Your task to perform on an android device: turn notification dots off Image 0: 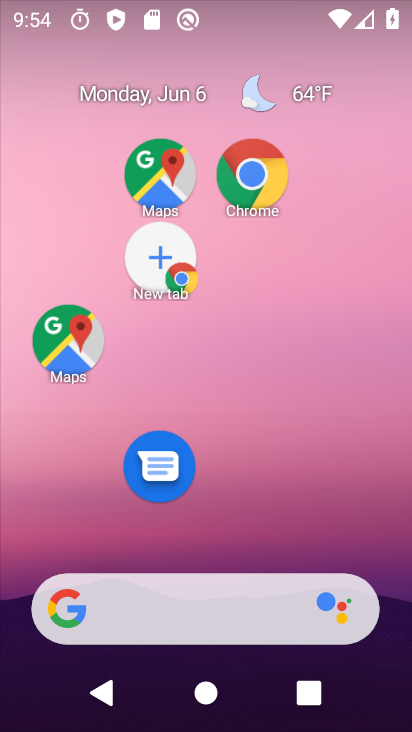
Step 0: drag from (248, 705) to (185, 263)
Your task to perform on an android device: turn notification dots off Image 1: 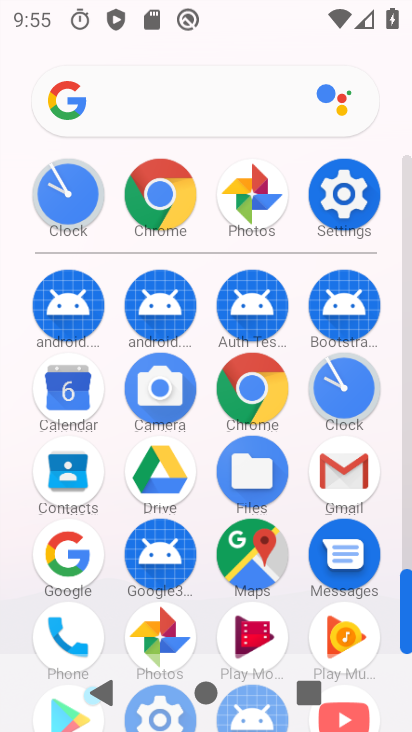
Step 1: click (333, 195)
Your task to perform on an android device: turn notification dots off Image 2: 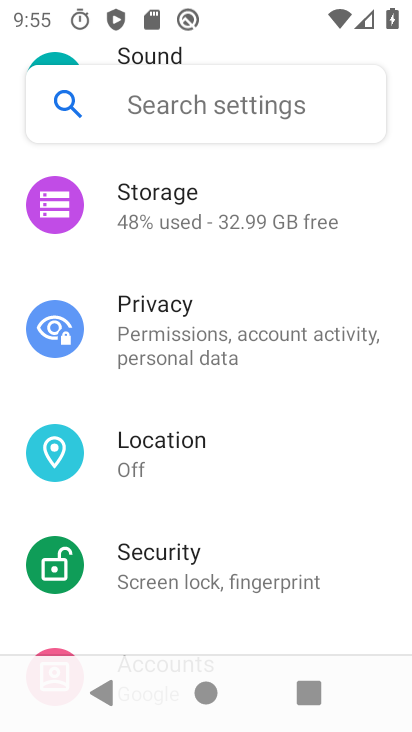
Step 2: drag from (193, 183) to (232, 549)
Your task to perform on an android device: turn notification dots off Image 3: 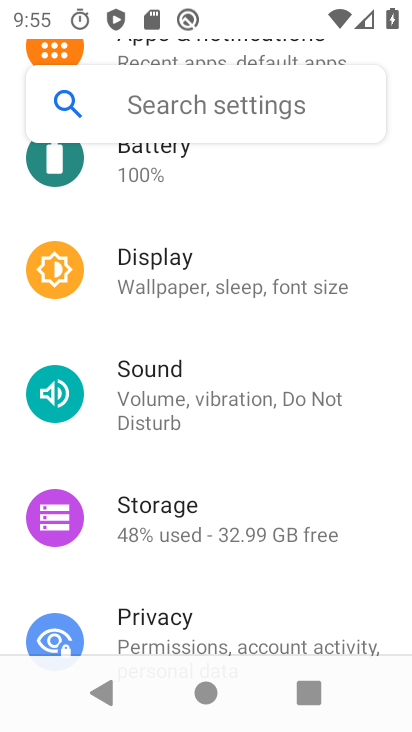
Step 3: drag from (210, 285) to (246, 497)
Your task to perform on an android device: turn notification dots off Image 4: 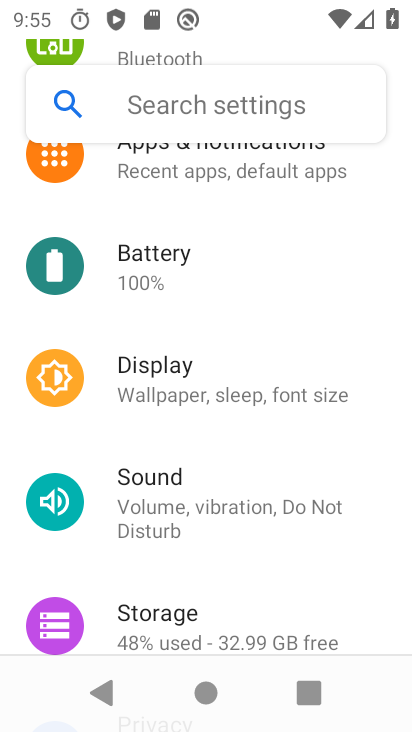
Step 4: drag from (226, 295) to (241, 494)
Your task to perform on an android device: turn notification dots off Image 5: 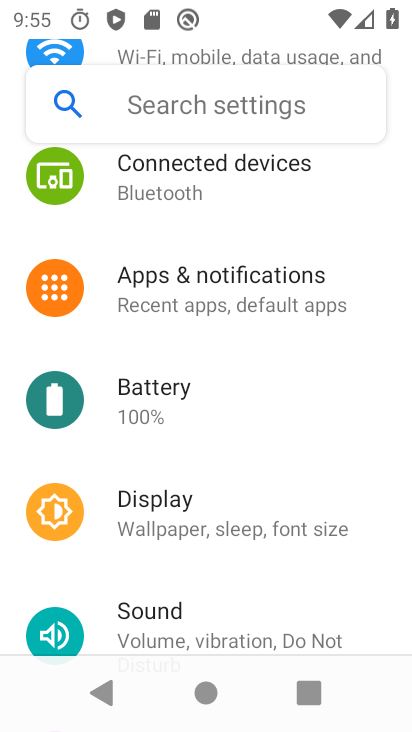
Step 5: drag from (155, 264) to (207, 551)
Your task to perform on an android device: turn notification dots off Image 6: 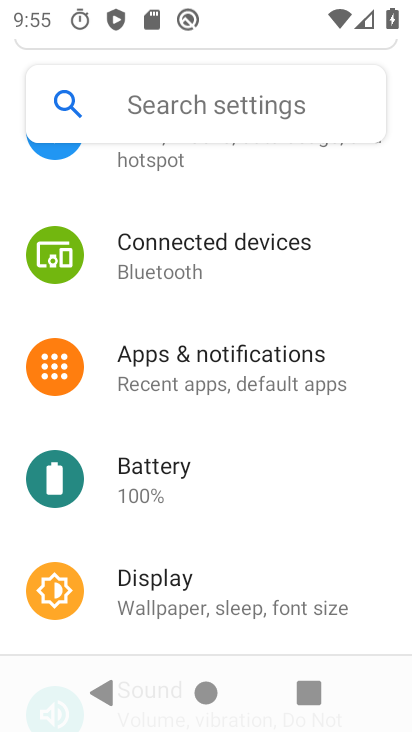
Step 6: drag from (150, 314) to (232, 599)
Your task to perform on an android device: turn notification dots off Image 7: 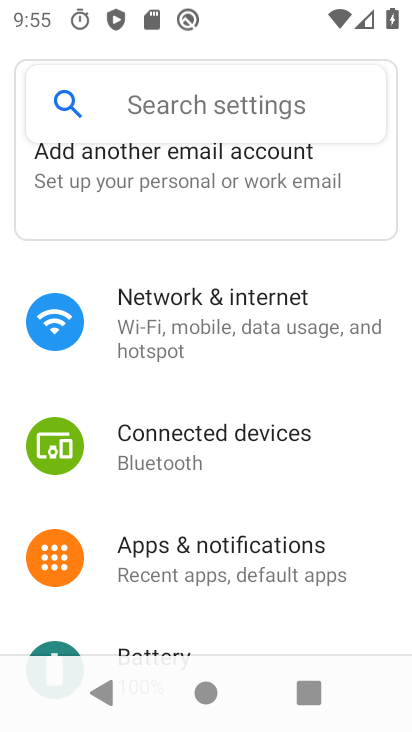
Step 7: click (228, 562)
Your task to perform on an android device: turn notification dots off Image 8: 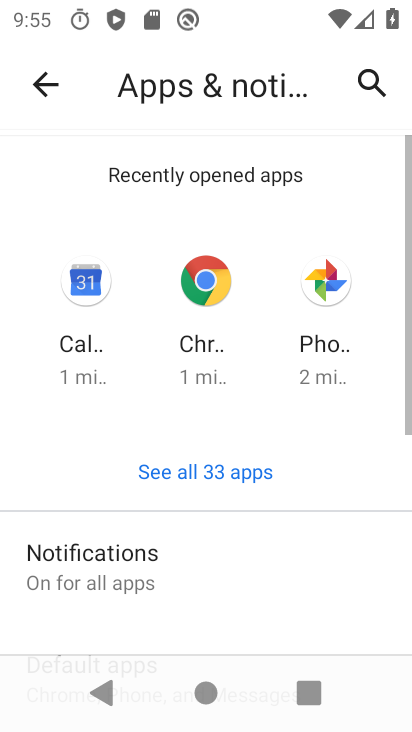
Step 8: drag from (171, 569) to (149, 242)
Your task to perform on an android device: turn notification dots off Image 9: 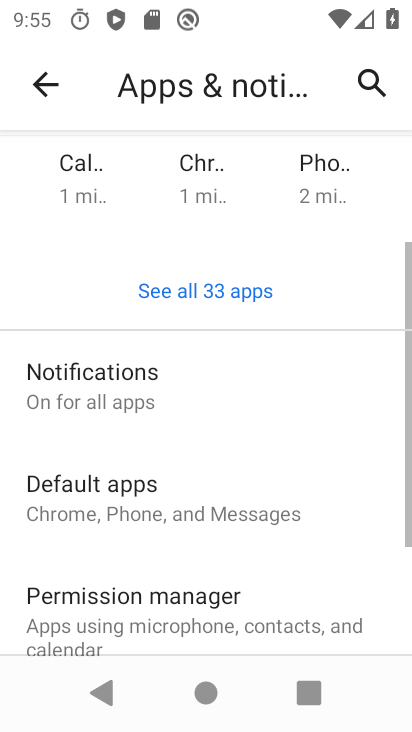
Step 9: drag from (223, 557) to (174, 328)
Your task to perform on an android device: turn notification dots off Image 10: 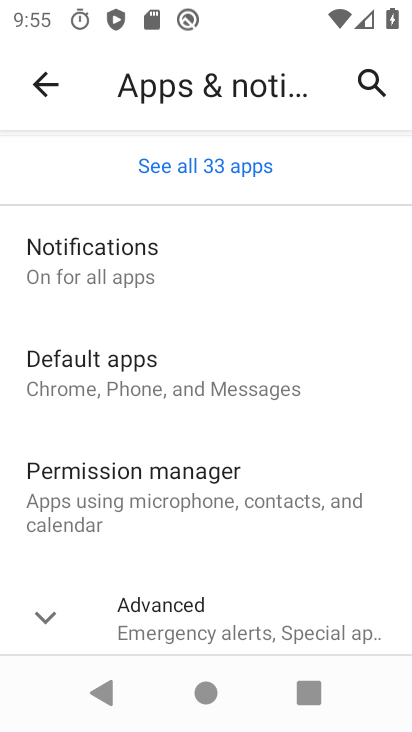
Step 10: drag from (215, 463) to (199, 282)
Your task to perform on an android device: turn notification dots off Image 11: 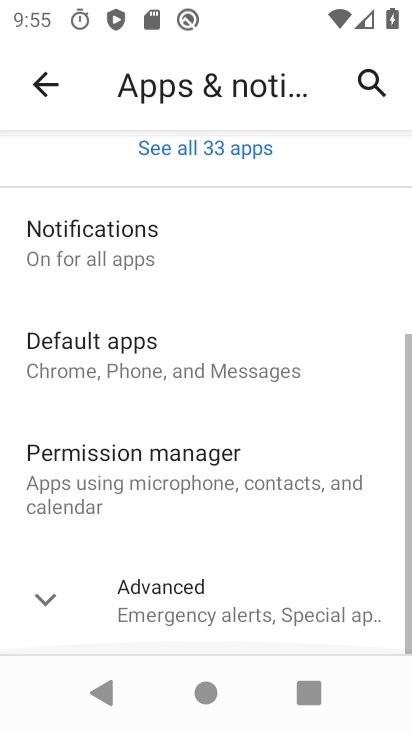
Step 11: drag from (225, 527) to (227, 276)
Your task to perform on an android device: turn notification dots off Image 12: 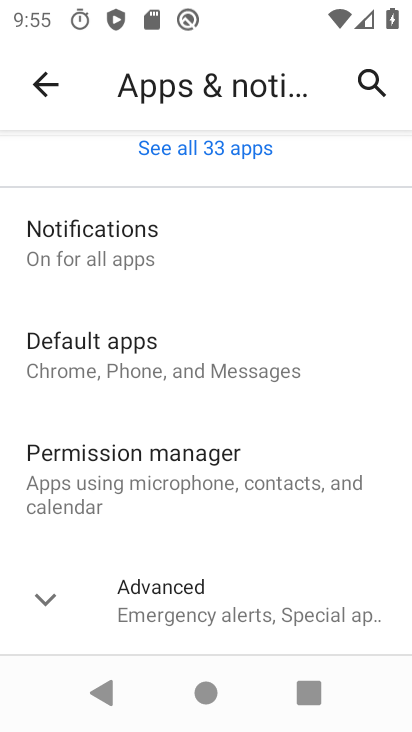
Step 12: click (70, 248)
Your task to perform on an android device: turn notification dots off Image 13: 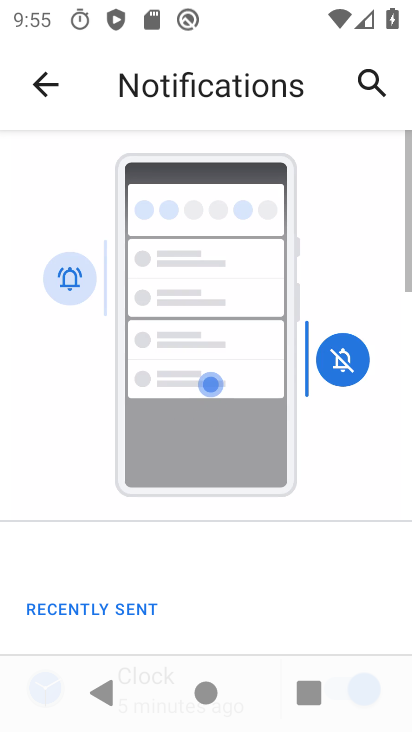
Step 13: drag from (210, 583) to (131, 262)
Your task to perform on an android device: turn notification dots off Image 14: 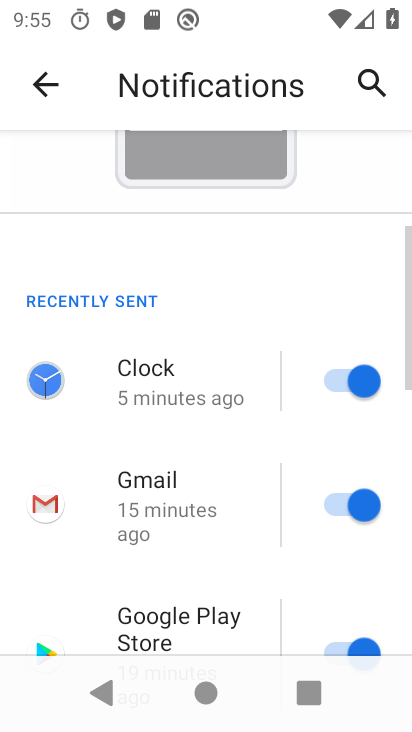
Step 14: drag from (200, 503) to (153, 207)
Your task to perform on an android device: turn notification dots off Image 15: 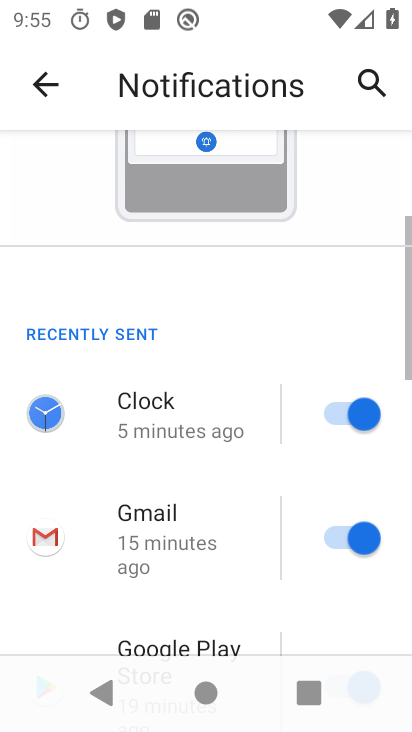
Step 15: drag from (147, 458) to (130, 231)
Your task to perform on an android device: turn notification dots off Image 16: 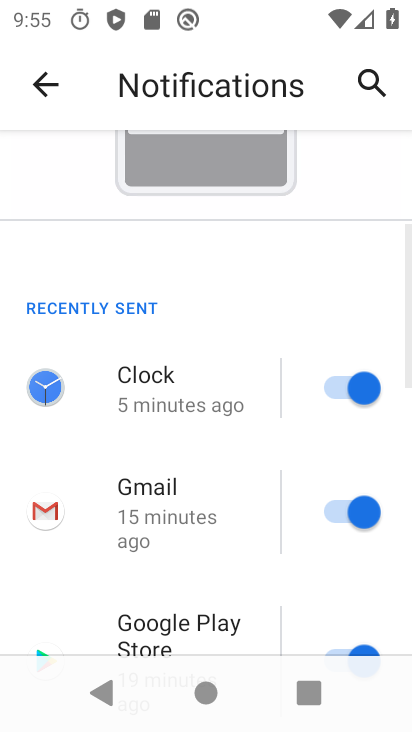
Step 16: drag from (208, 470) to (200, 240)
Your task to perform on an android device: turn notification dots off Image 17: 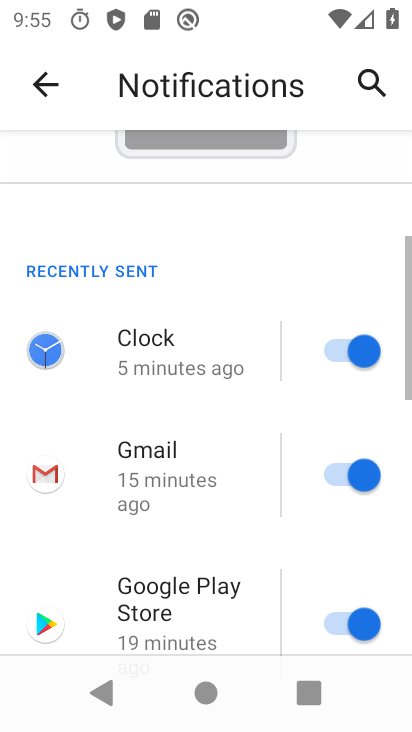
Step 17: drag from (260, 445) to (216, 187)
Your task to perform on an android device: turn notification dots off Image 18: 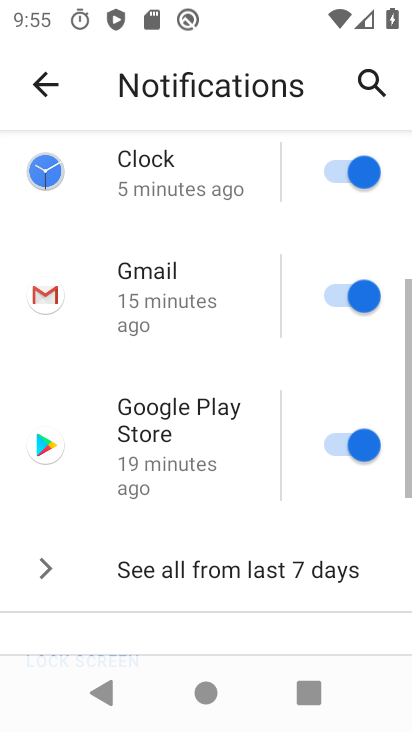
Step 18: drag from (210, 502) to (172, 268)
Your task to perform on an android device: turn notification dots off Image 19: 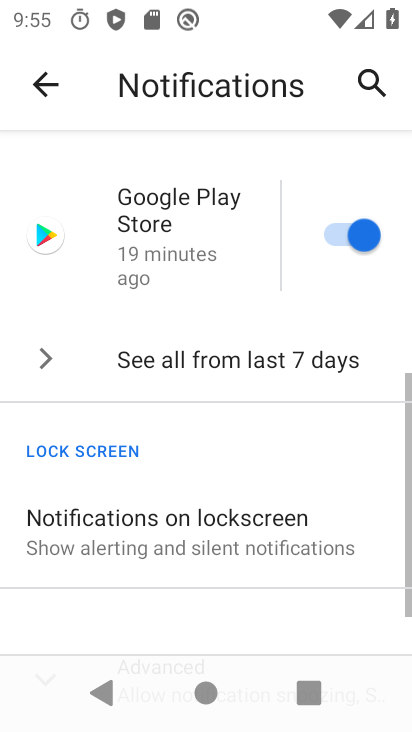
Step 19: drag from (245, 546) to (221, 269)
Your task to perform on an android device: turn notification dots off Image 20: 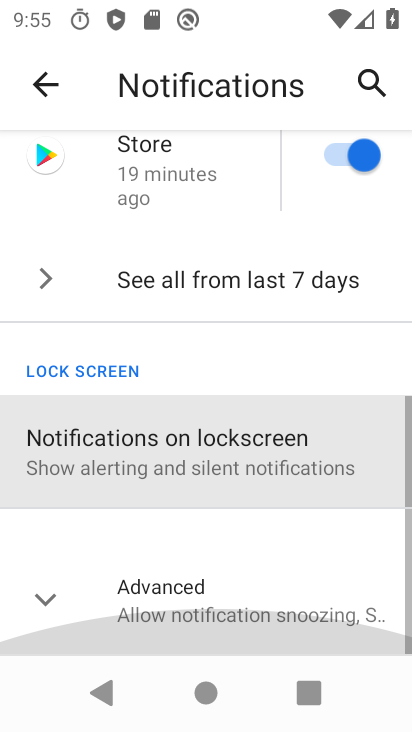
Step 20: drag from (277, 542) to (238, 274)
Your task to perform on an android device: turn notification dots off Image 21: 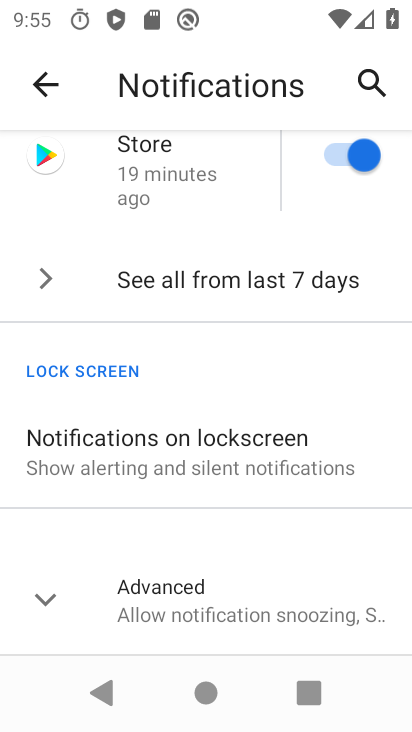
Step 21: click (213, 600)
Your task to perform on an android device: turn notification dots off Image 22: 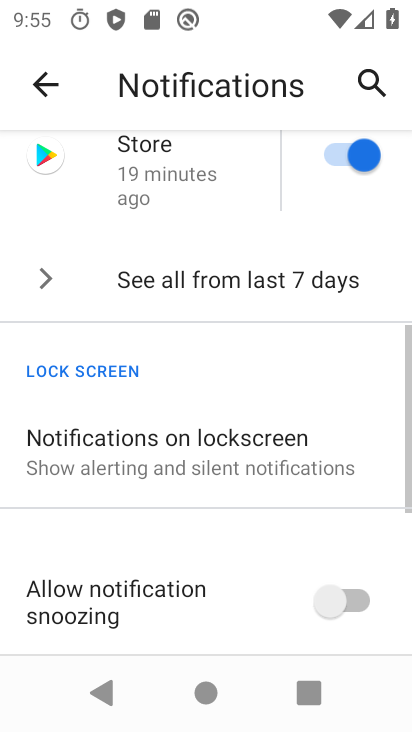
Step 22: drag from (171, 535) to (170, 214)
Your task to perform on an android device: turn notification dots off Image 23: 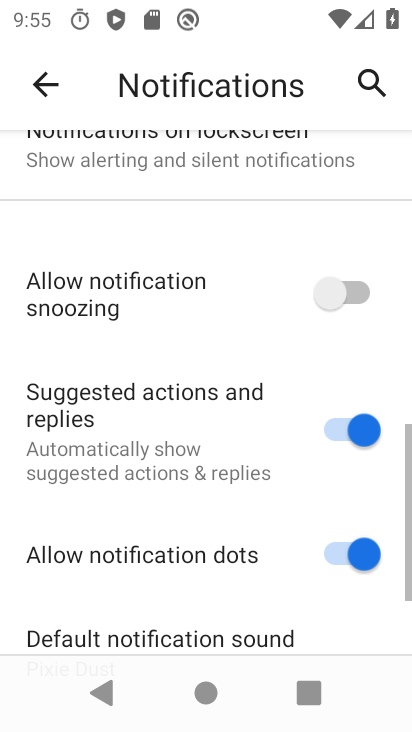
Step 23: drag from (241, 505) to (214, 326)
Your task to perform on an android device: turn notification dots off Image 24: 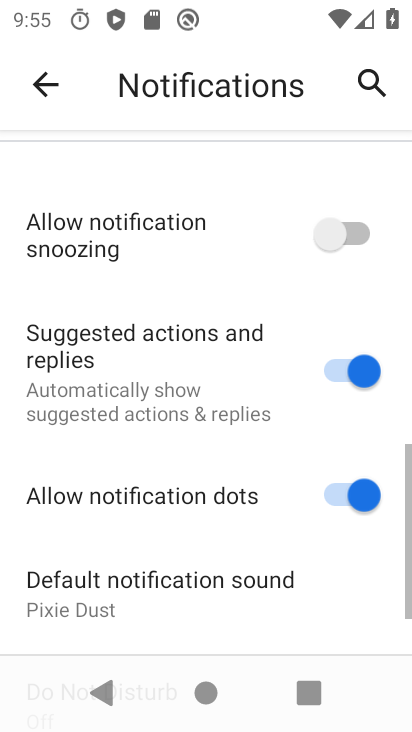
Step 24: drag from (235, 417) to (219, 253)
Your task to perform on an android device: turn notification dots off Image 25: 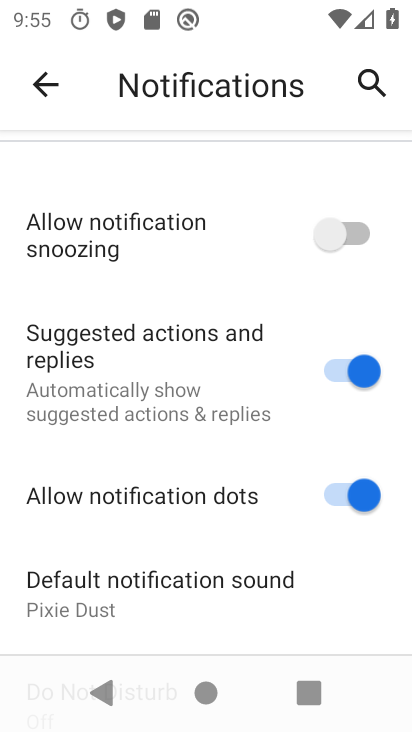
Step 25: click (362, 496)
Your task to perform on an android device: turn notification dots off Image 26: 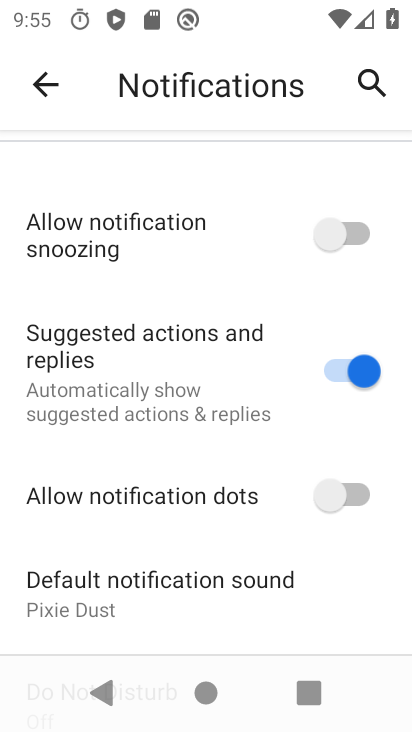
Step 26: task complete